Your task to perform on an android device: turn off picture-in-picture Image 0: 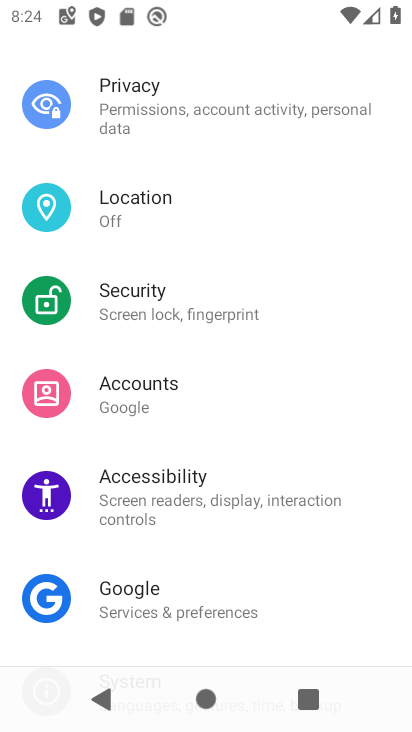
Step 0: press home button
Your task to perform on an android device: turn off picture-in-picture Image 1: 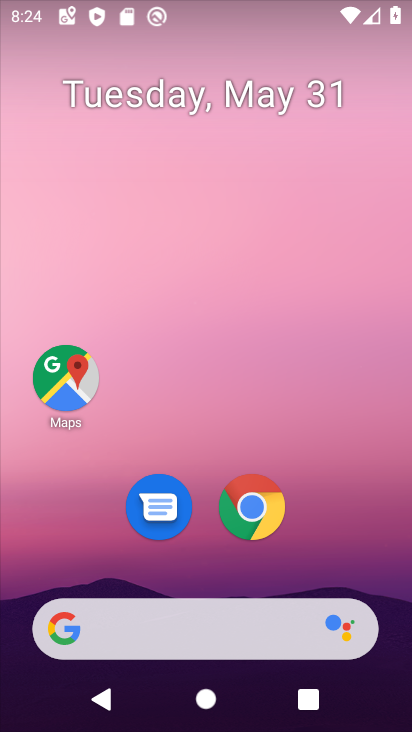
Step 1: click (252, 522)
Your task to perform on an android device: turn off picture-in-picture Image 2: 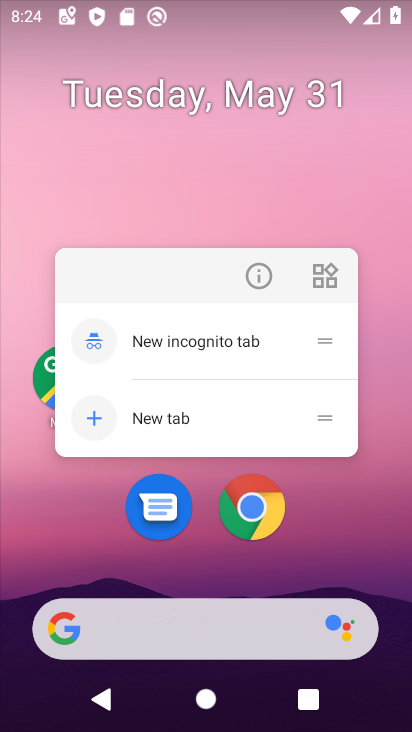
Step 2: click (252, 281)
Your task to perform on an android device: turn off picture-in-picture Image 3: 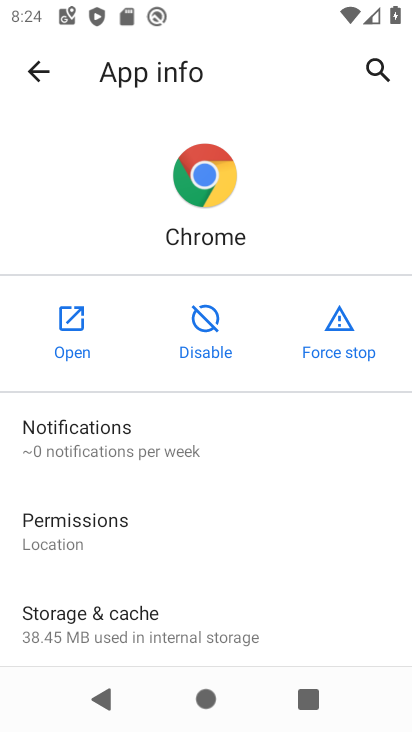
Step 3: drag from (255, 550) to (194, 12)
Your task to perform on an android device: turn off picture-in-picture Image 4: 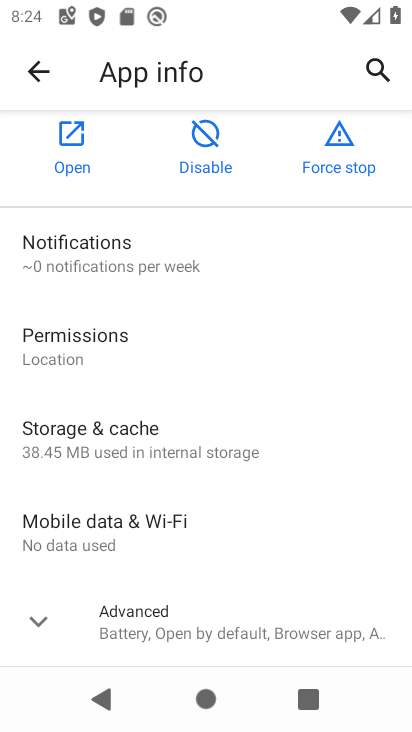
Step 4: click (165, 606)
Your task to perform on an android device: turn off picture-in-picture Image 5: 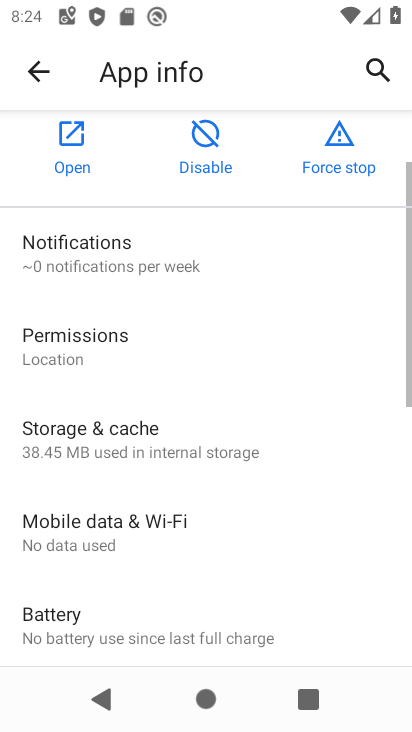
Step 5: drag from (175, 567) to (210, 11)
Your task to perform on an android device: turn off picture-in-picture Image 6: 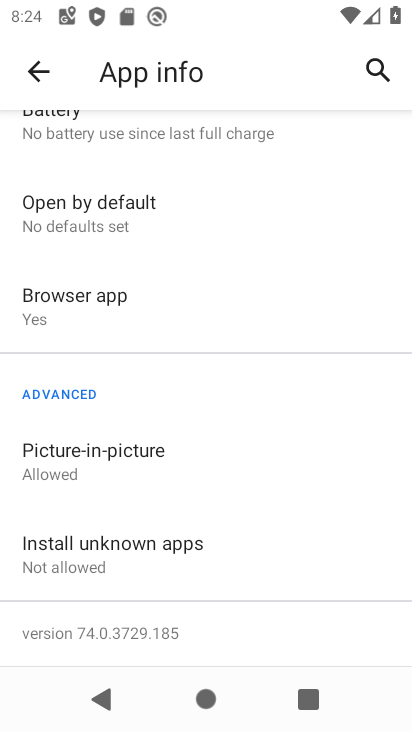
Step 6: click (130, 447)
Your task to perform on an android device: turn off picture-in-picture Image 7: 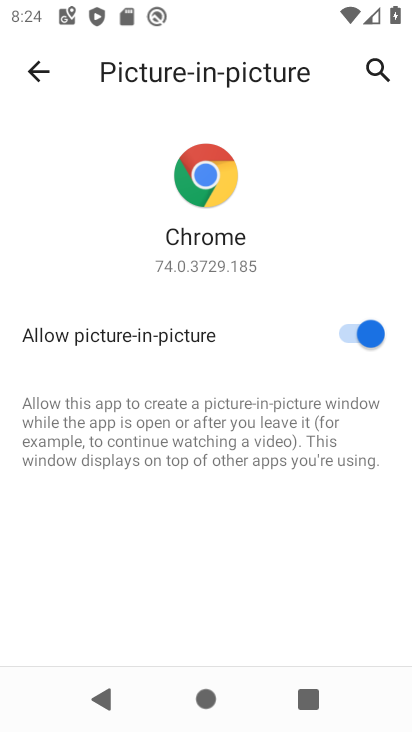
Step 7: click (369, 355)
Your task to perform on an android device: turn off picture-in-picture Image 8: 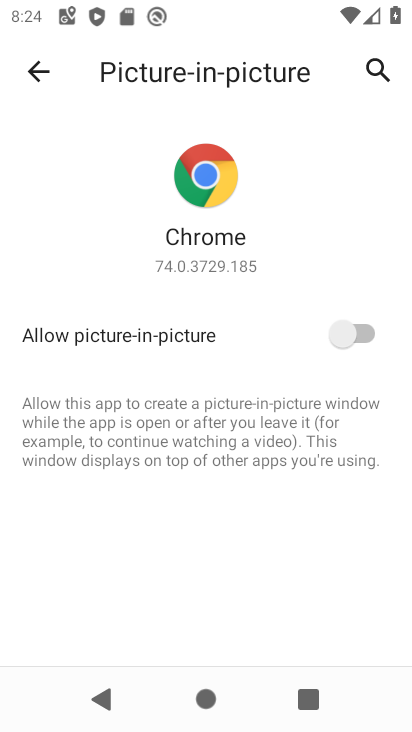
Step 8: task complete